Your task to perform on an android device: show emergency info Image 0: 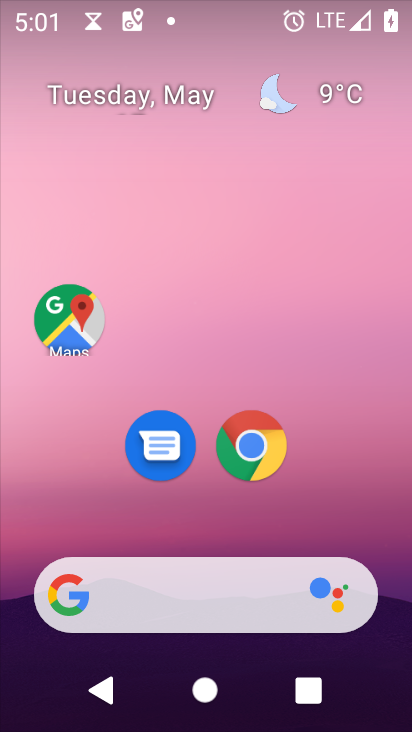
Step 0: drag from (330, 585) to (296, 45)
Your task to perform on an android device: show emergency info Image 1: 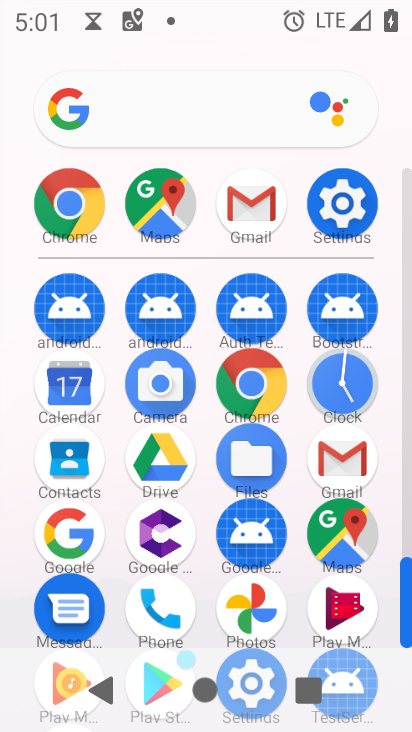
Step 1: click (344, 197)
Your task to perform on an android device: show emergency info Image 2: 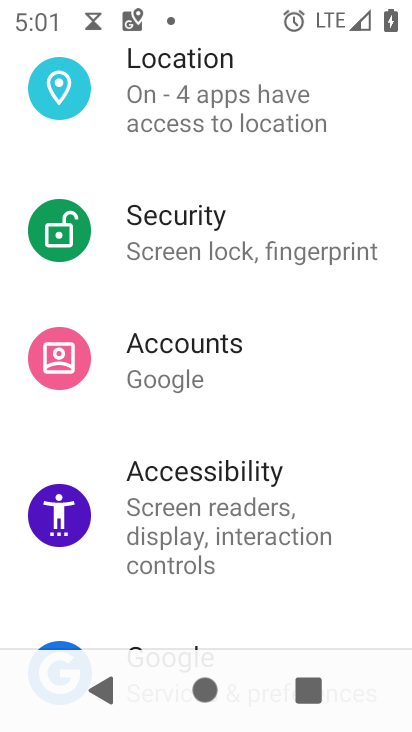
Step 2: drag from (191, 640) to (165, 120)
Your task to perform on an android device: show emergency info Image 3: 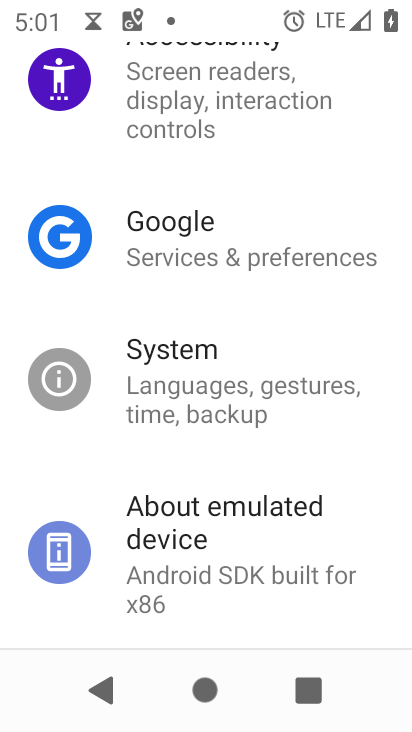
Step 3: drag from (308, 603) to (332, 226)
Your task to perform on an android device: show emergency info Image 4: 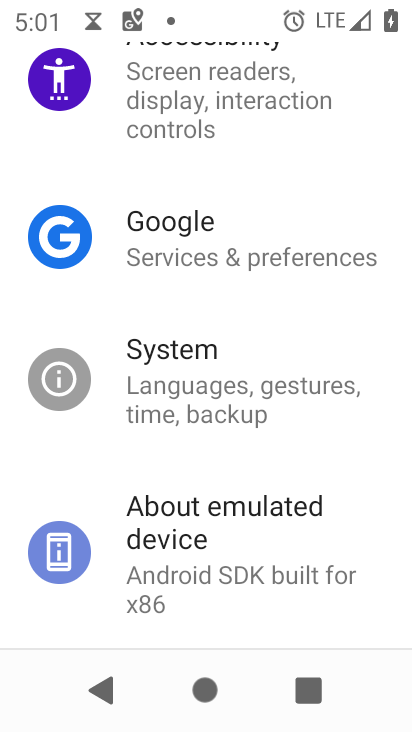
Step 4: click (256, 570)
Your task to perform on an android device: show emergency info Image 5: 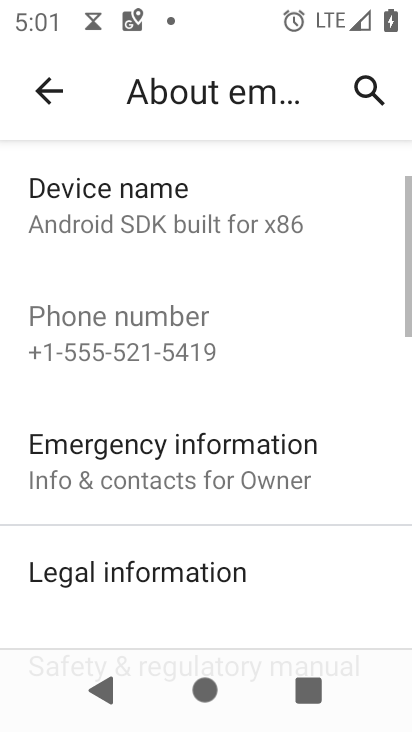
Step 5: click (272, 471)
Your task to perform on an android device: show emergency info Image 6: 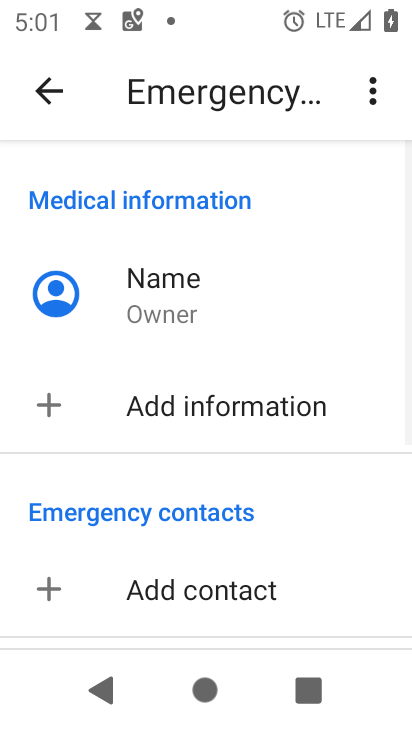
Step 6: task complete